Your task to perform on an android device: Search for logitech g pro on walmart.com, select the first entry, and add it to the cart. Image 0: 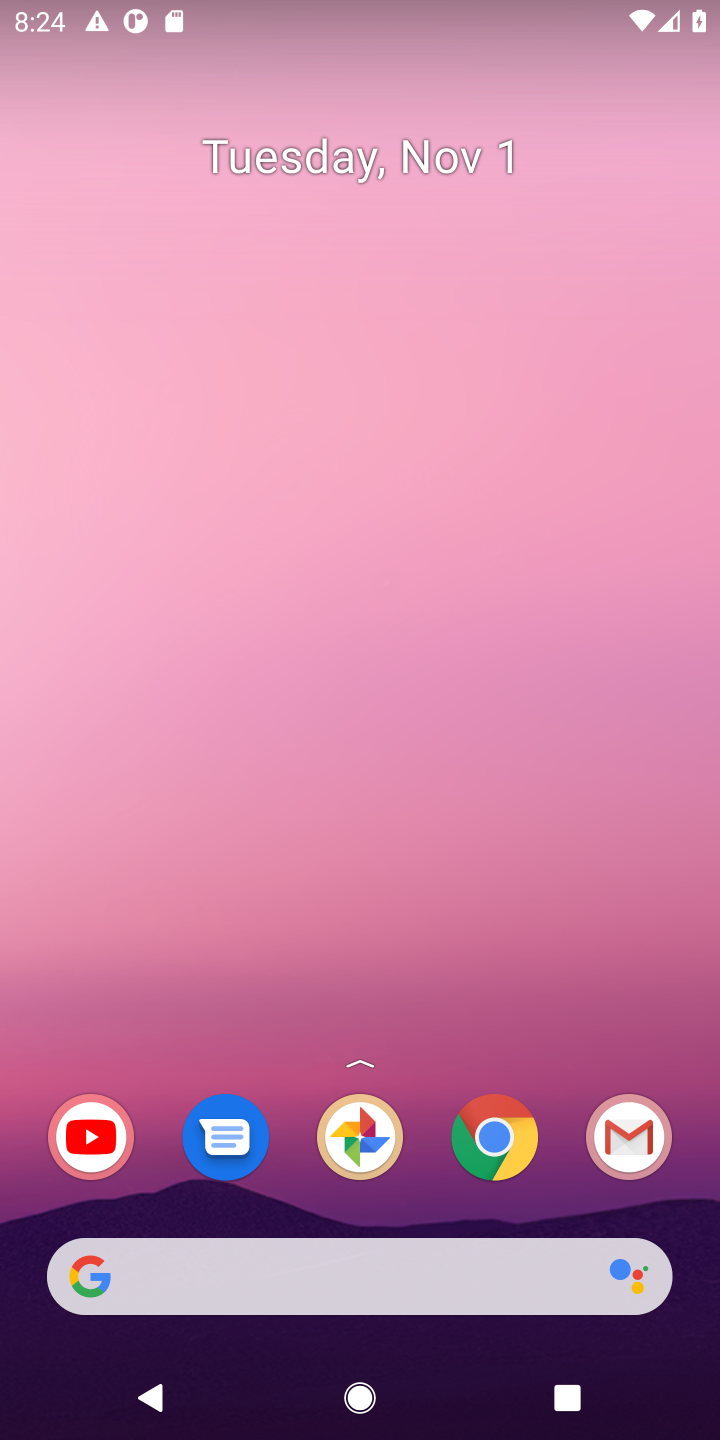
Step 0: click (348, 1264)
Your task to perform on an android device: Search for logitech g pro on walmart.com, select the first entry, and add it to the cart. Image 1: 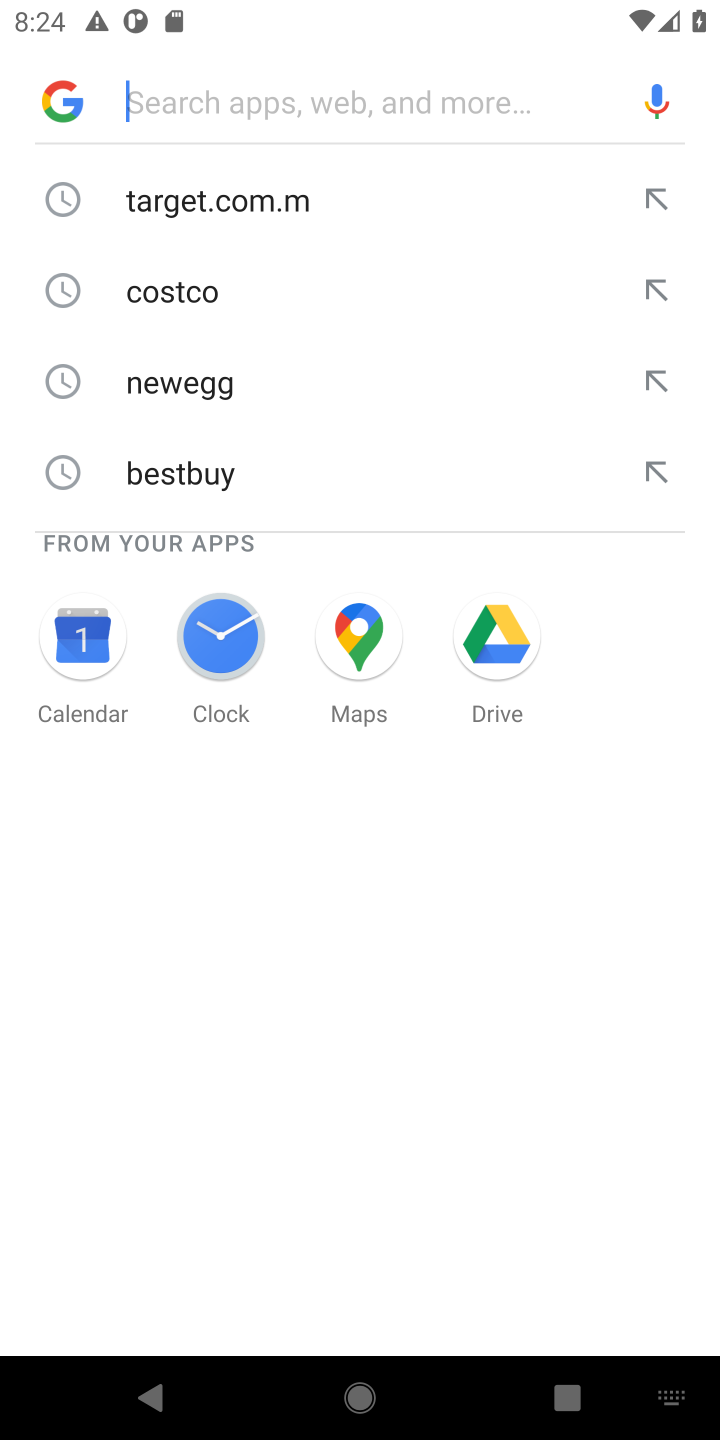
Step 1: type "walmart.com"
Your task to perform on an android device: Search for logitech g pro on walmart.com, select the first entry, and add it to the cart. Image 2: 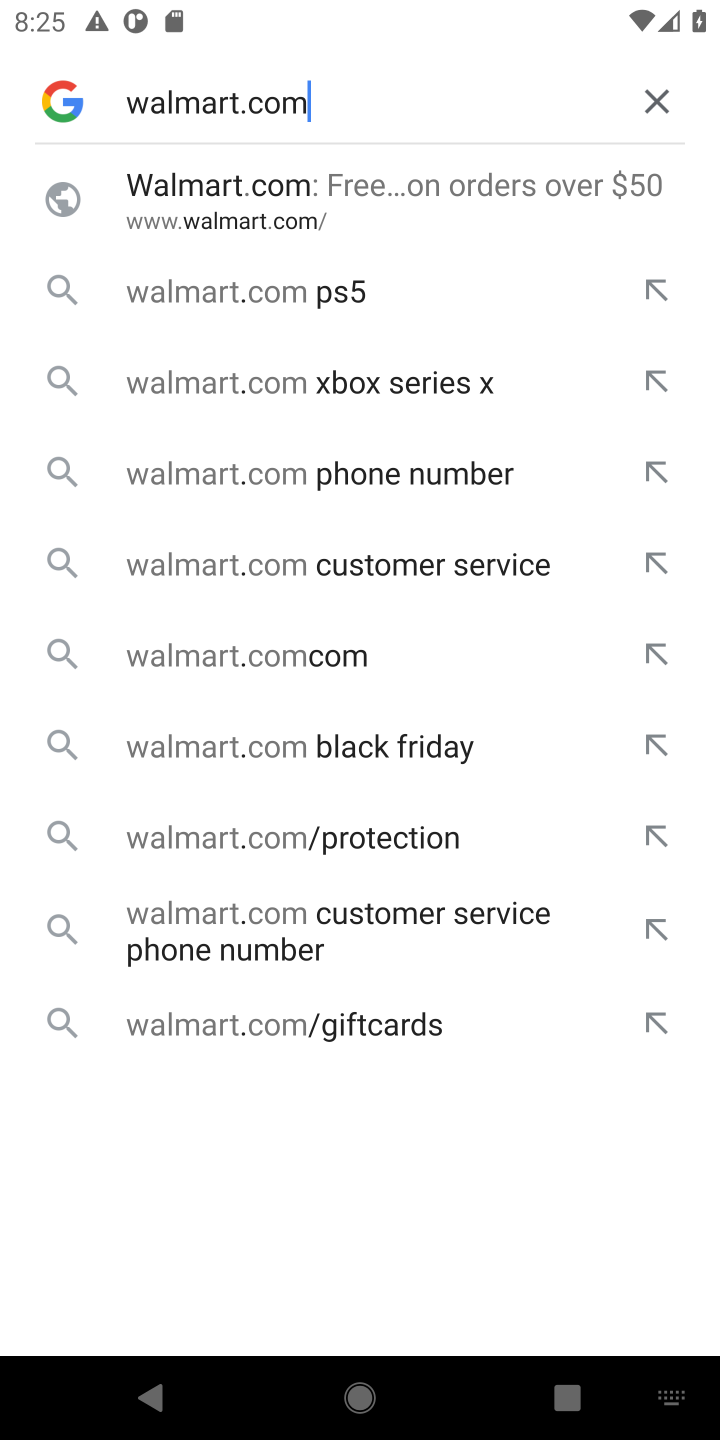
Step 2: click (305, 210)
Your task to perform on an android device: Search for logitech g pro on walmart.com, select the first entry, and add it to the cart. Image 3: 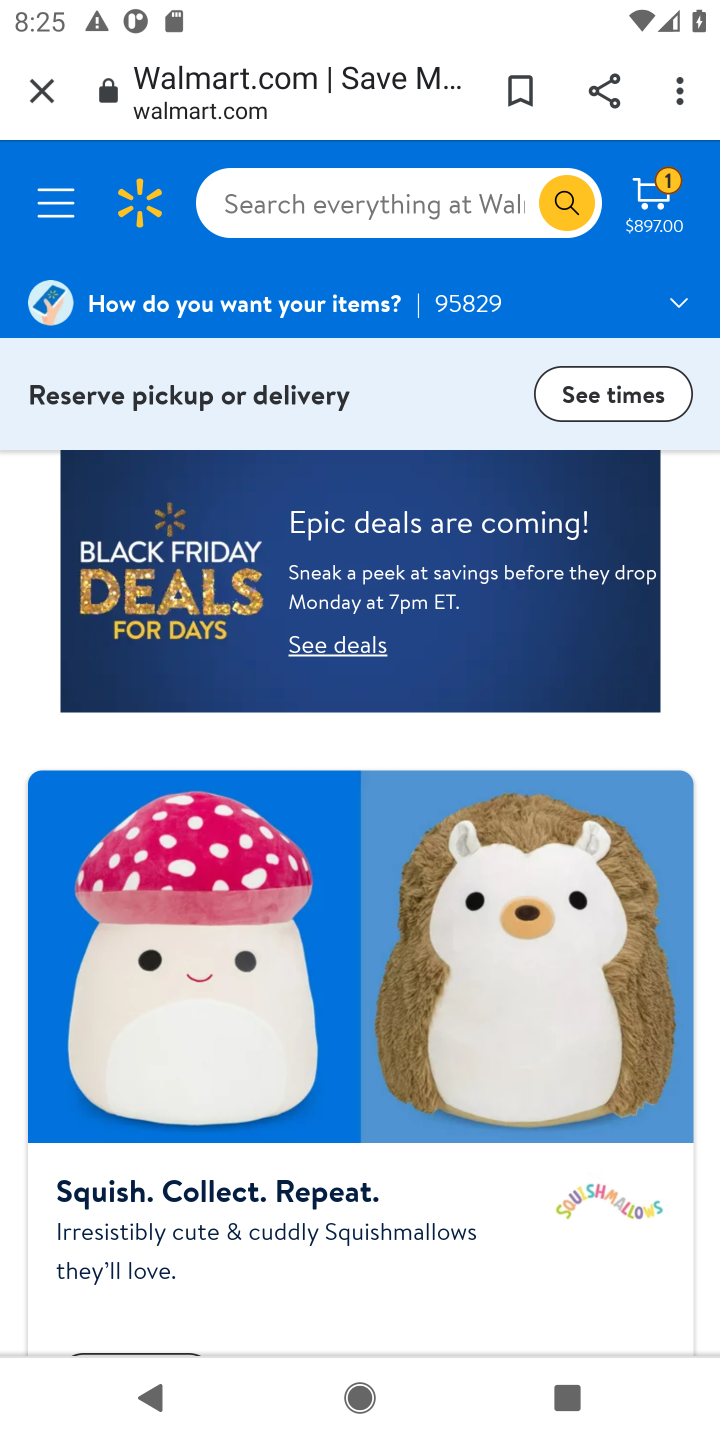
Step 3: click (365, 196)
Your task to perform on an android device: Search for logitech g pro on walmart.com, select the first entry, and add it to the cart. Image 4: 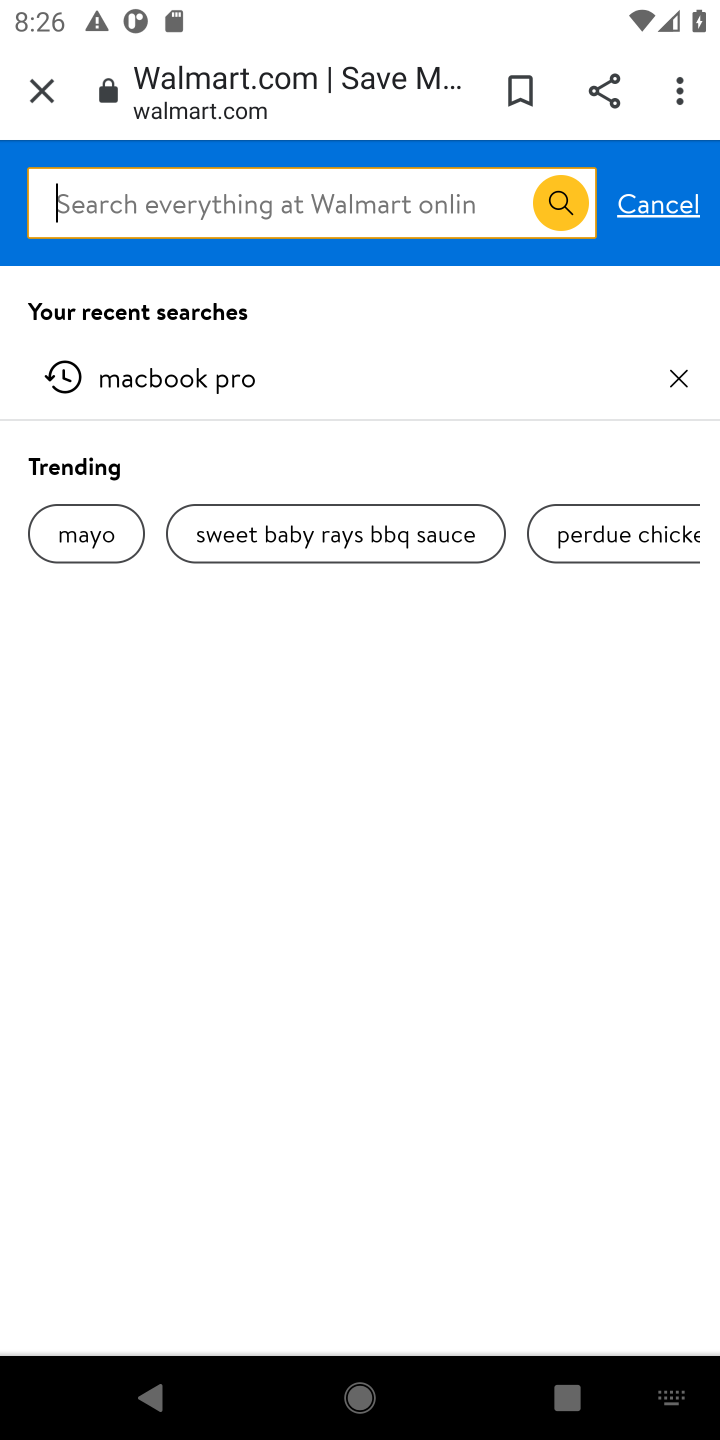
Step 4: type "logitech g pro"
Your task to perform on an android device: Search for logitech g pro on walmart.com, select the first entry, and add it to the cart. Image 5: 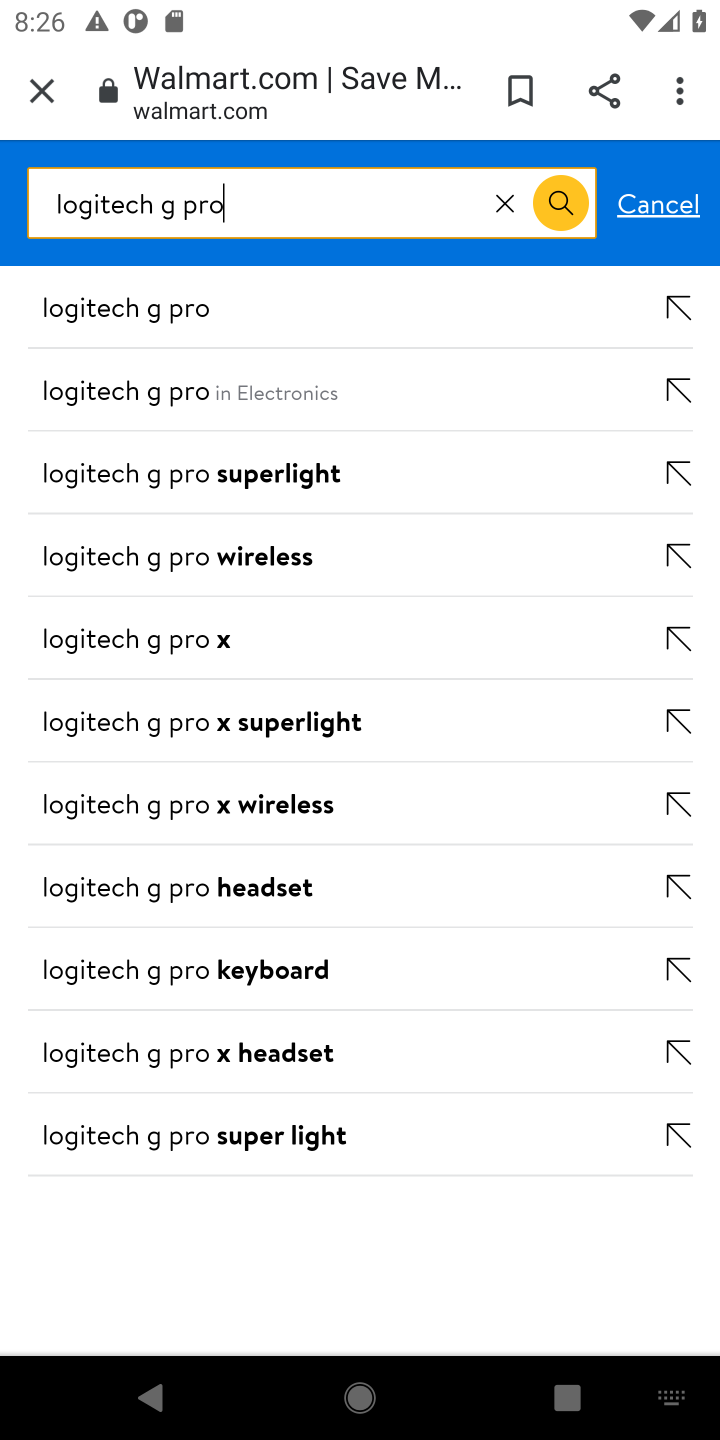
Step 5: click (163, 310)
Your task to perform on an android device: Search for logitech g pro on walmart.com, select the first entry, and add it to the cart. Image 6: 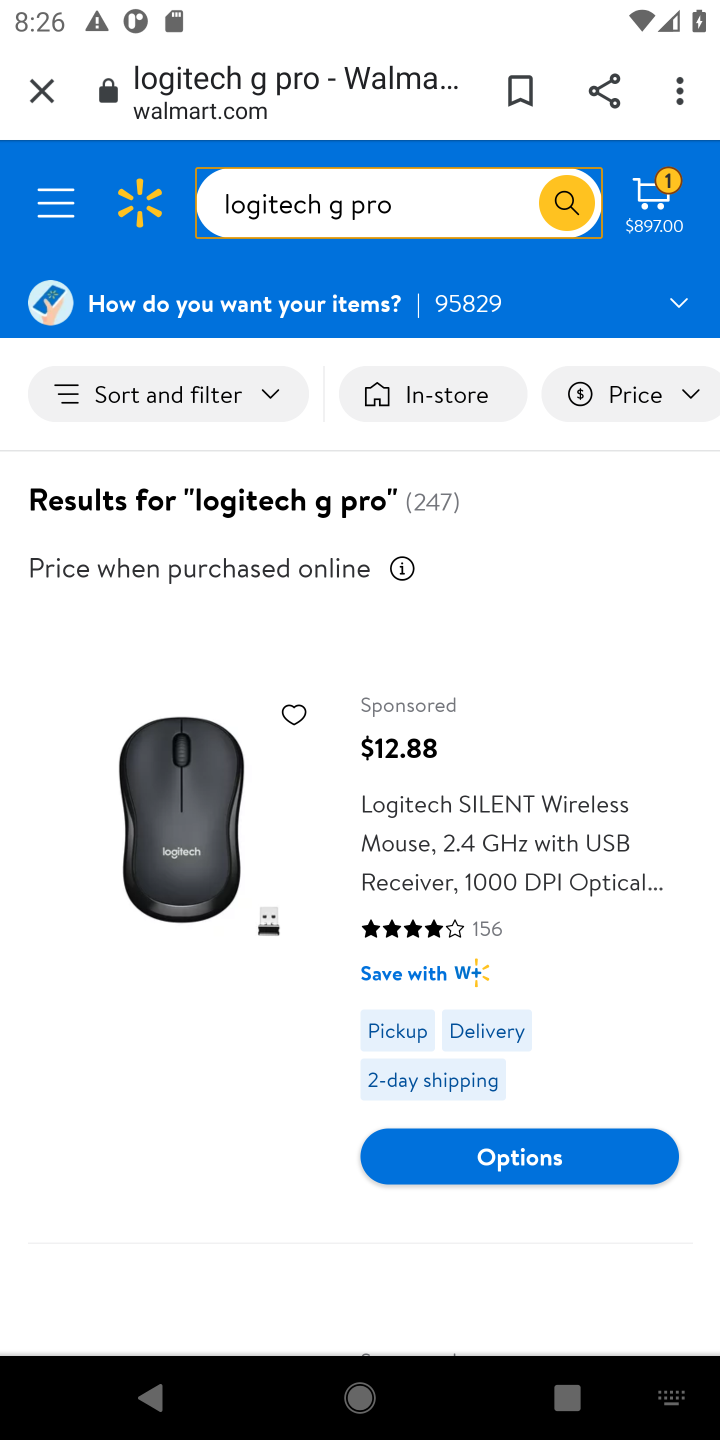
Step 6: click (480, 1160)
Your task to perform on an android device: Search for logitech g pro on walmart.com, select the first entry, and add it to the cart. Image 7: 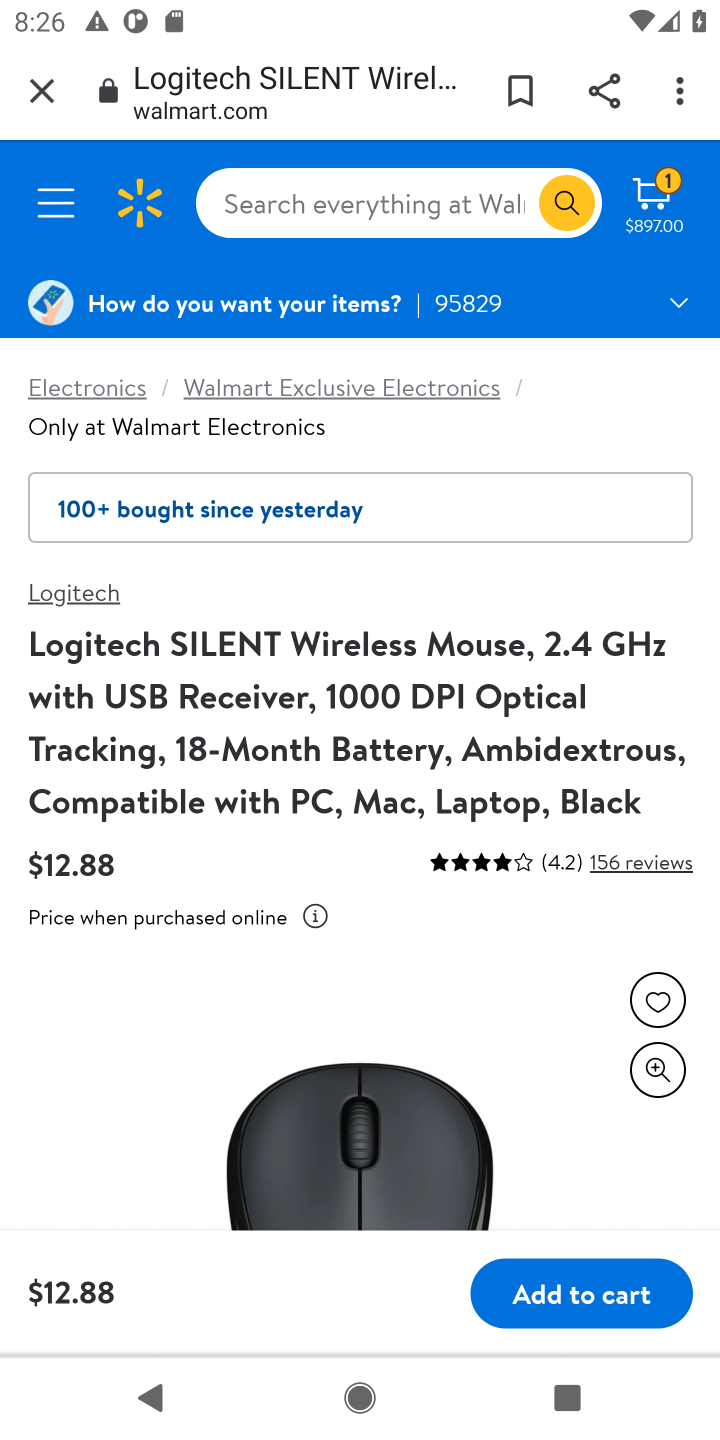
Step 7: click (527, 1298)
Your task to perform on an android device: Search for logitech g pro on walmart.com, select the first entry, and add it to the cart. Image 8: 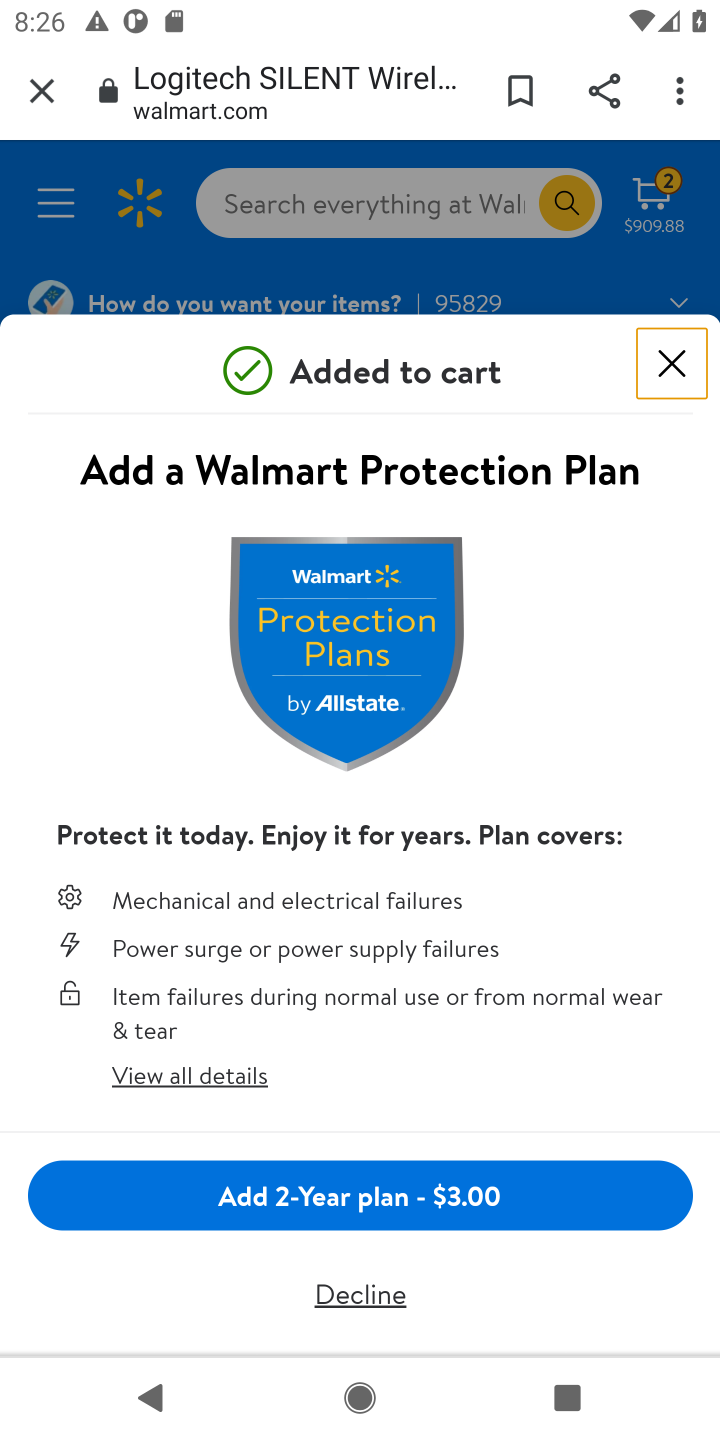
Step 8: click (362, 1299)
Your task to perform on an android device: Search for logitech g pro on walmart.com, select the first entry, and add it to the cart. Image 9: 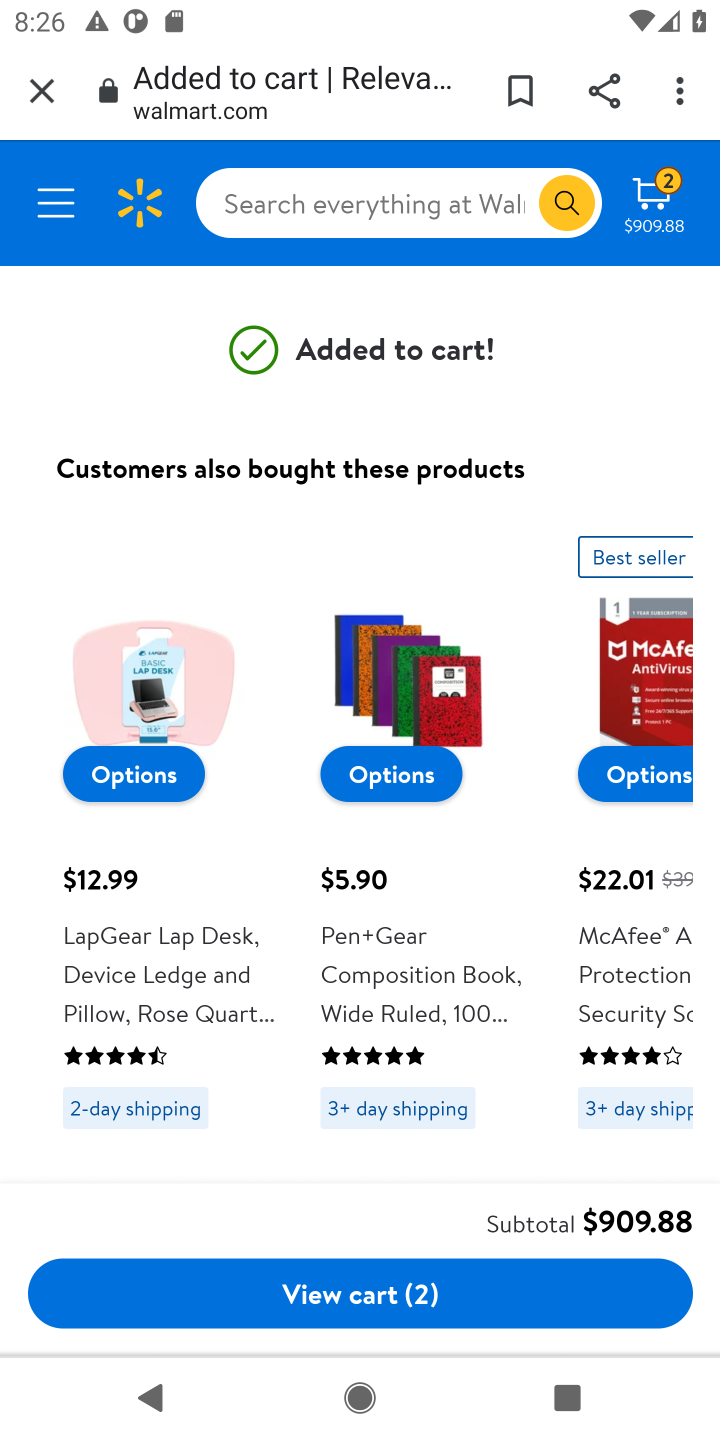
Step 9: click (362, 1299)
Your task to perform on an android device: Search for logitech g pro on walmart.com, select the first entry, and add it to the cart. Image 10: 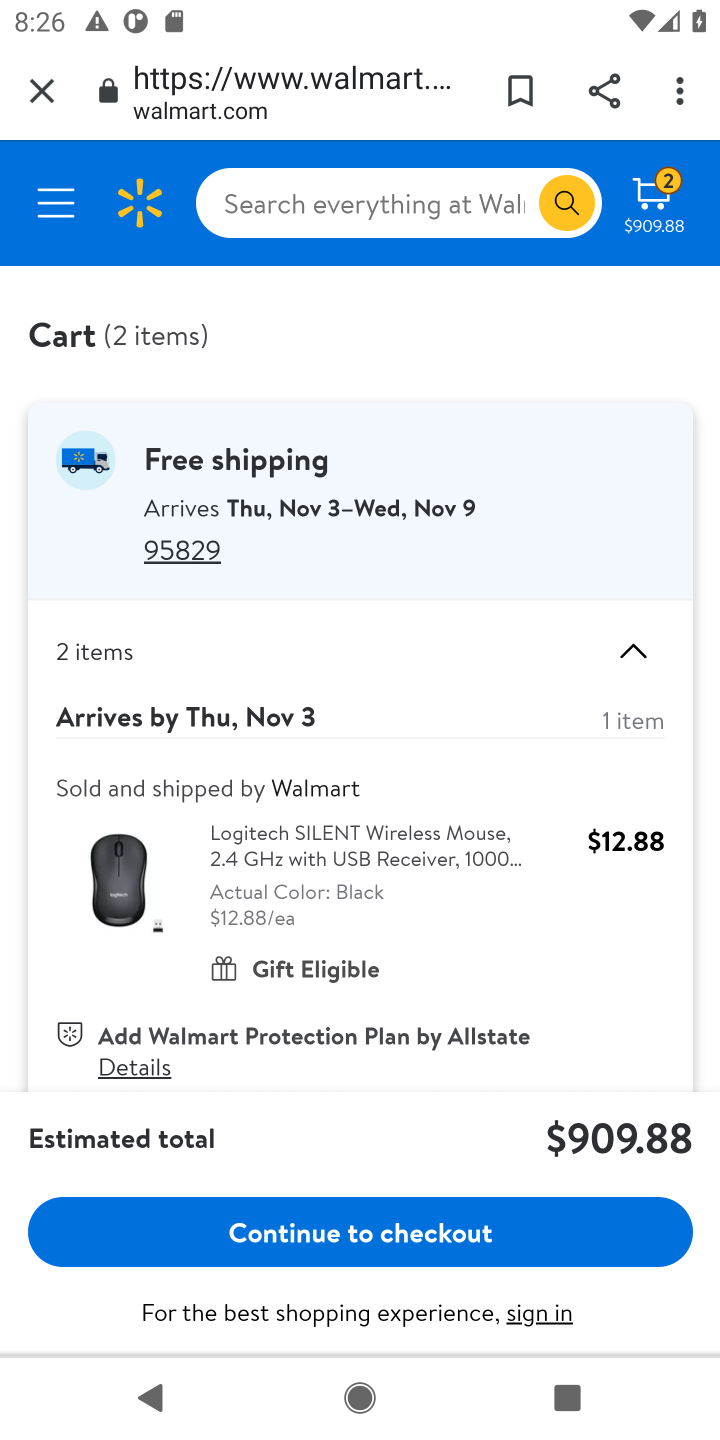
Step 10: click (318, 1234)
Your task to perform on an android device: Search for logitech g pro on walmart.com, select the first entry, and add it to the cart. Image 11: 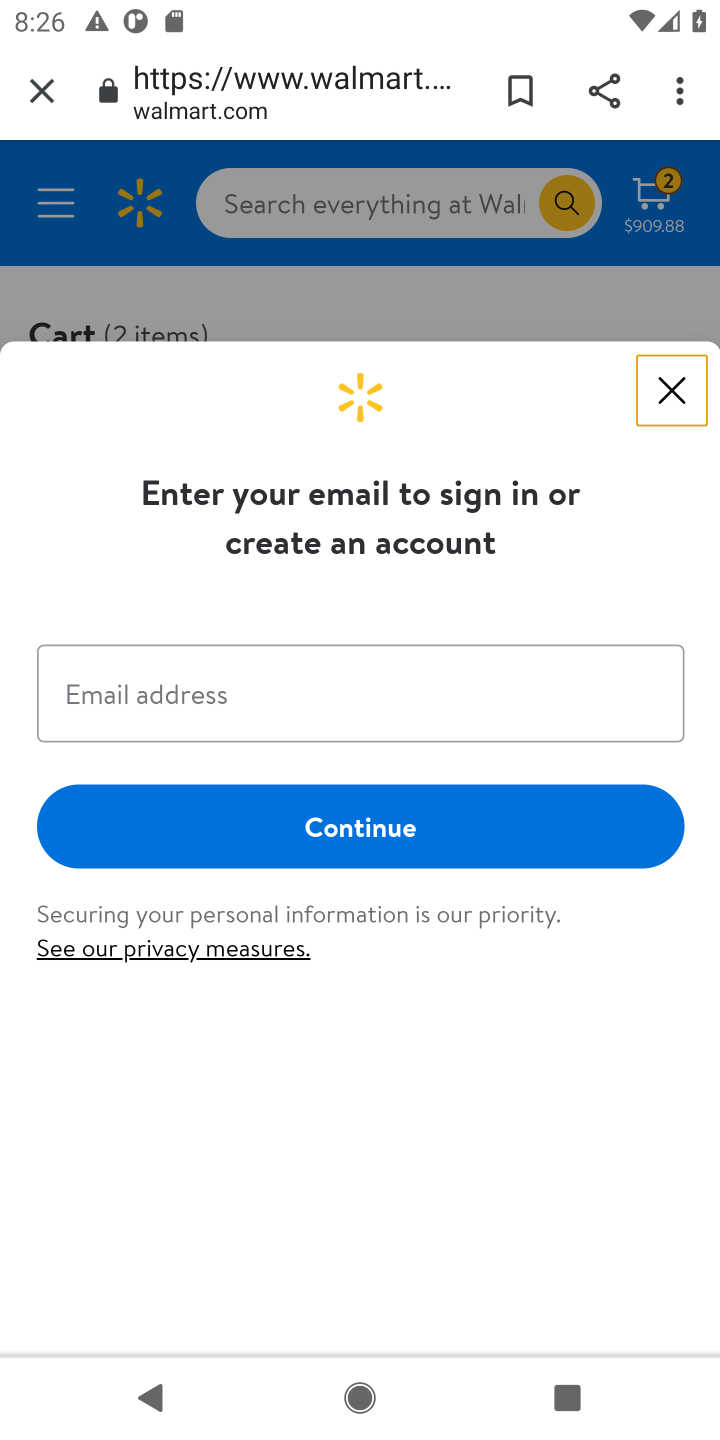
Step 11: task complete